Your task to perform on an android device: turn on improve location accuracy Image 0: 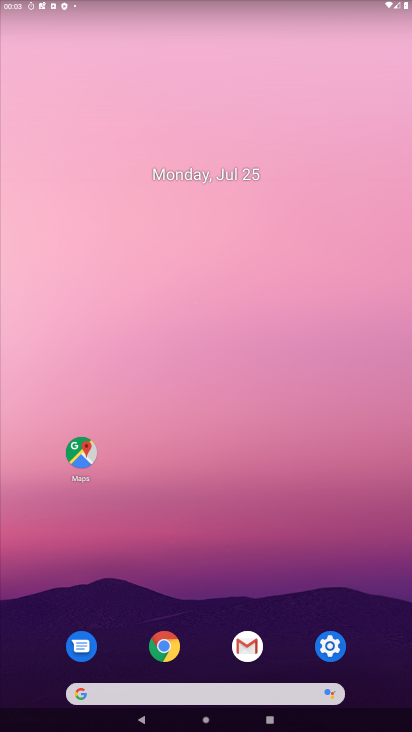
Step 0: click (331, 640)
Your task to perform on an android device: turn on improve location accuracy Image 1: 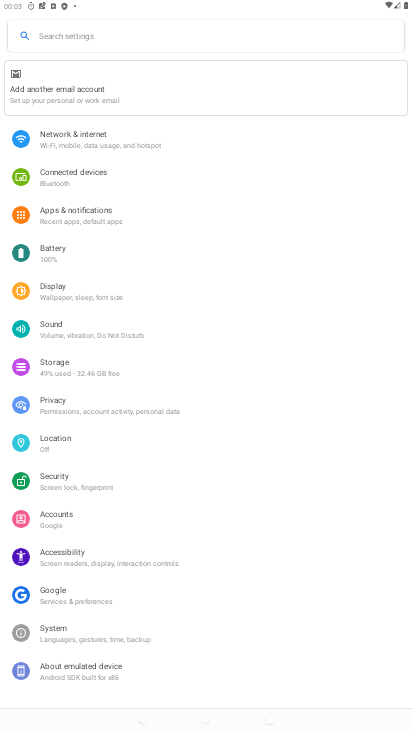
Step 1: click (82, 453)
Your task to perform on an android device: turn on improve location accuracy Image 2: 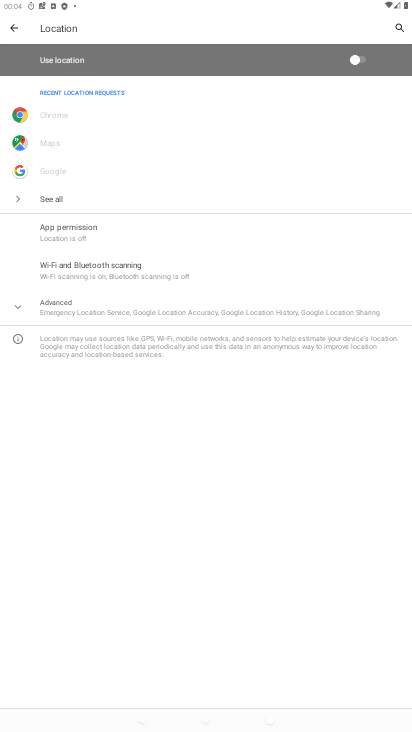
Step 2: click (19, 324)
Your task to perform on an android device: turn on improve location accuracy Image 3: 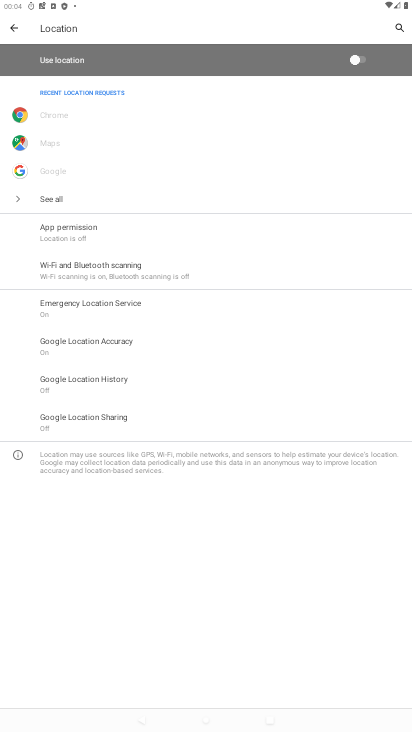
Step 3: task complete